Your task to perform on an android device: move a message to another label in the gmail app Image 0: 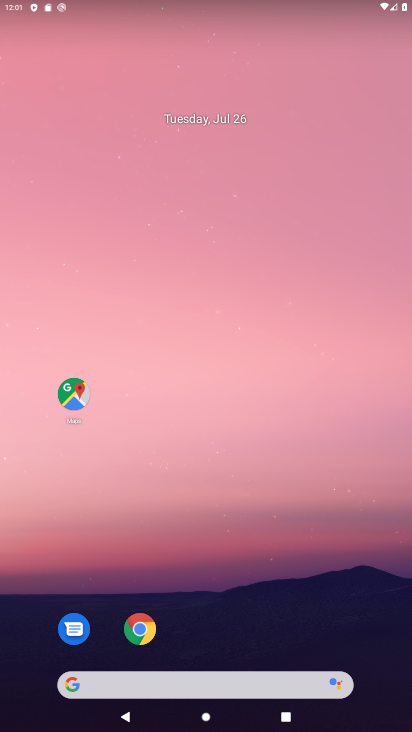
Step 0: drag from (333, 636) to (194, 81)
Your task to perform on an android device: move a message to another label in the gmail app Image 1: 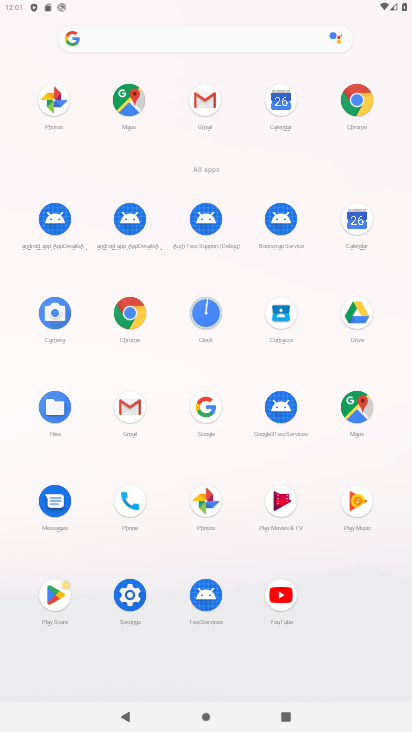
Step 1: click (136, 403)
Your task to perform on an android device: move a message to another label in the gmail app Image 2: 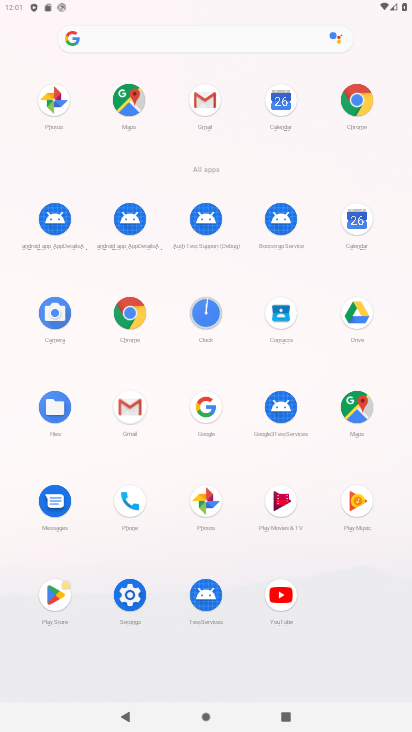
Step 2: click (131, 400)
Your task to perform on an android device: move a message to another label in the gmail app Image 3: 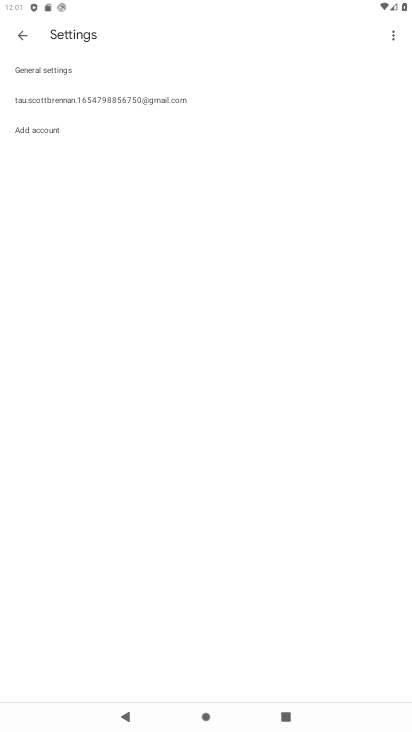
Step 3: click (72, 98)
Your task to perform on an android device: move a message to another label in the gmail app Image 4: 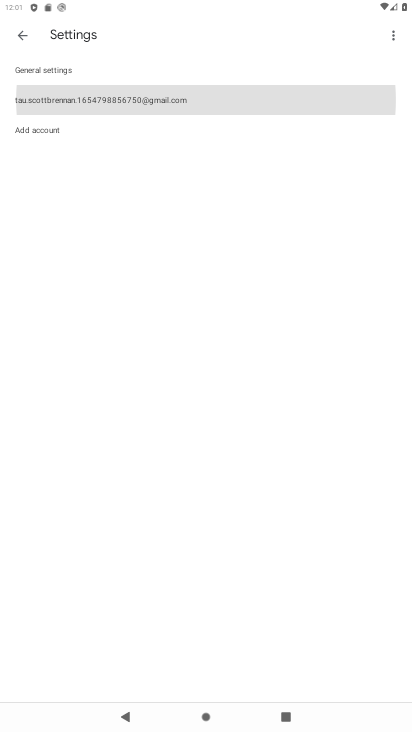
Step 4: click (72, 98)
Your task to perform on an android device: move a message to another label in the gmail app Image 5: 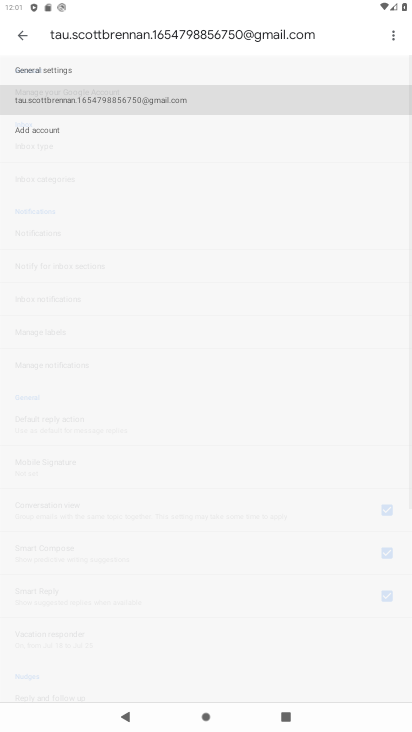
Step 5: click (74, 101)
Your task to perform on an android device: move a message to another label in the gmail app Image 6: 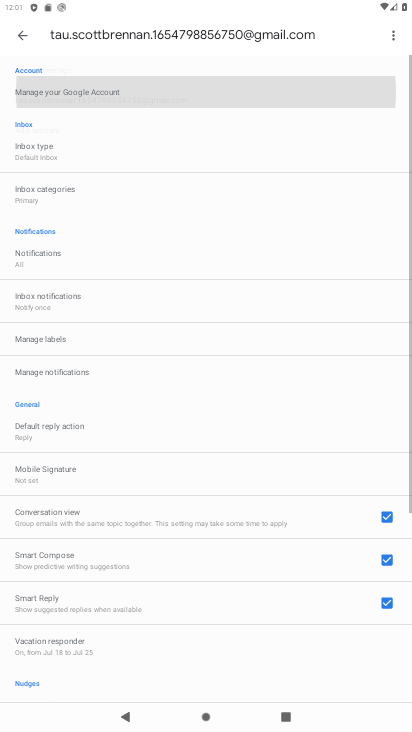
Step 6: click (74, 102)
Your task to perform on an android device: move a message to another label in the gmail app Image 7: 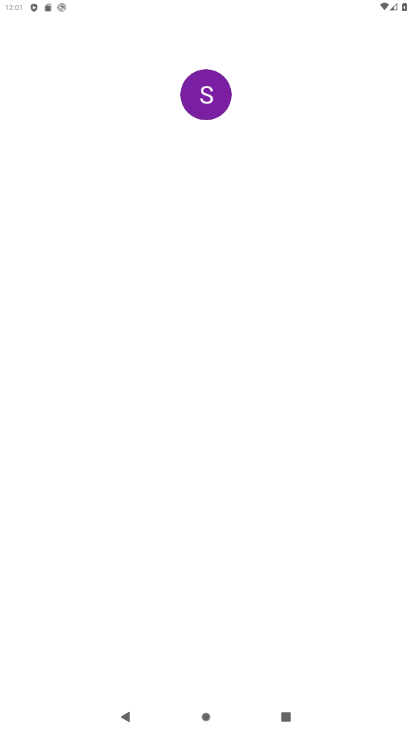
Step 7: press back button
Your task to perform on an android device: move a message to another label in the gmail app Image 8: 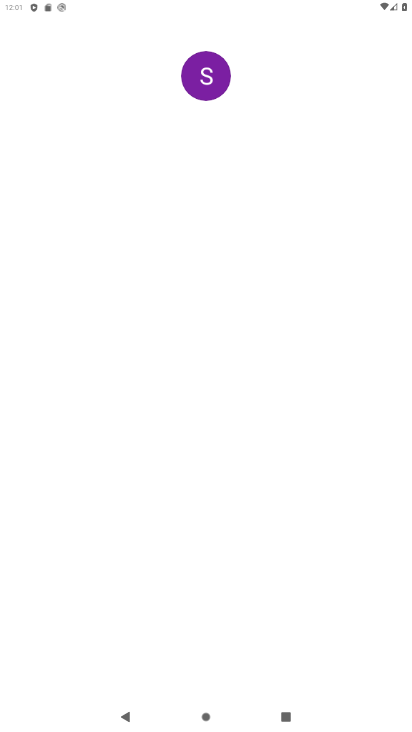
Step 8: press back button
Your task to perform on an android device: move a message to another label in the gmail app Image 9: 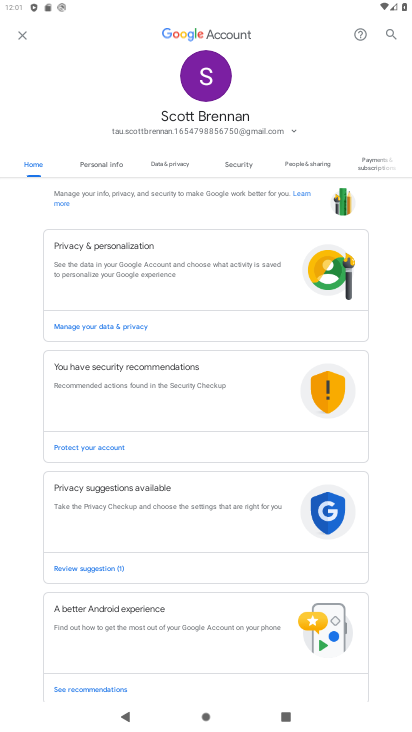
Step 9: click (20, 35)
Your task to perform on an android device: move a message to another label in the gmail app Image 10: 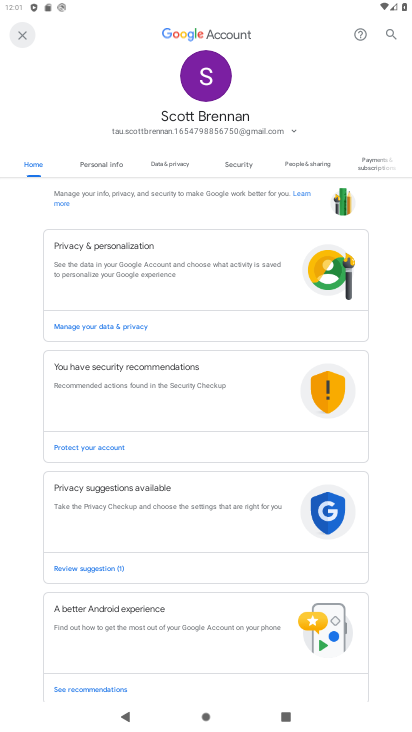
Step 10: click (20, 36)
Your task to perform on an android device: move a message to another label in the gmail app Image 11: 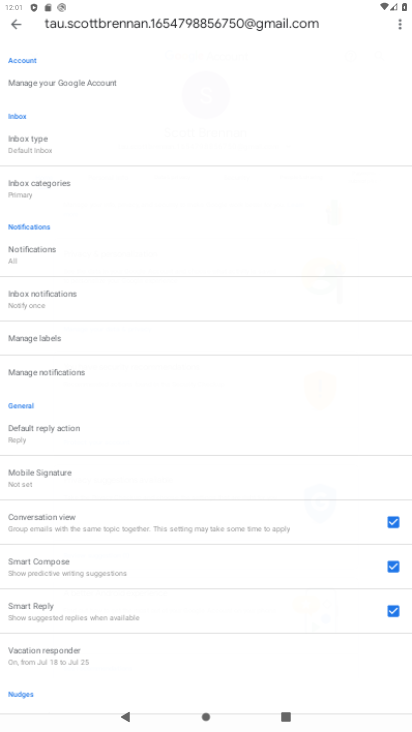
Step 11: click (20, 36)
Your task to perform on an android device: move a message to another label in the gmail app Image 12: 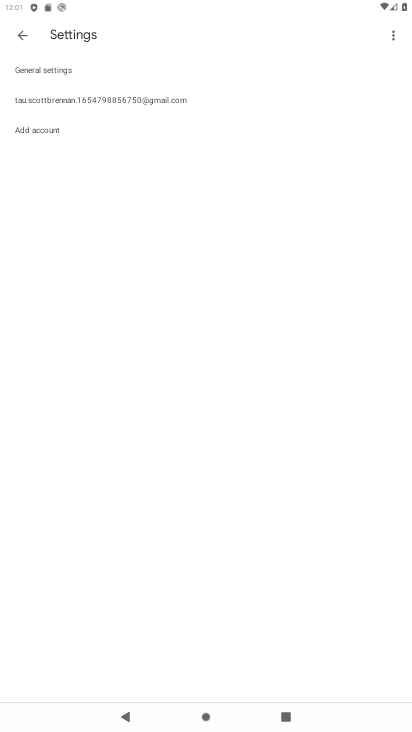
Step 12: click (30, 39)
Your task to perform on an android device: move a message to another label in the gmail app Image 13: 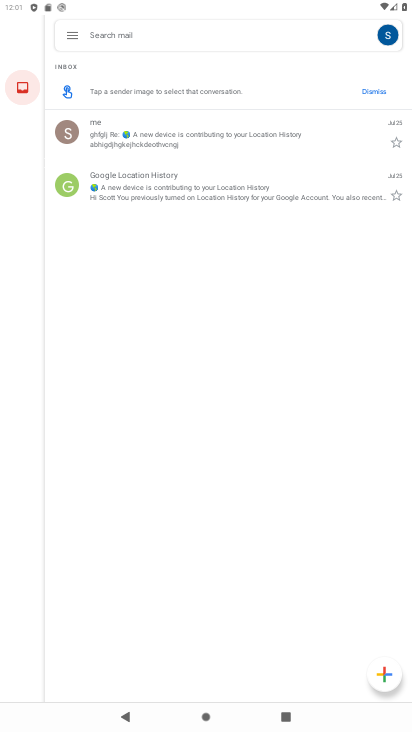
Step 13: click (394, 142)
Your task to perform on an android device: move a message to another label in the gmail app Image 14: 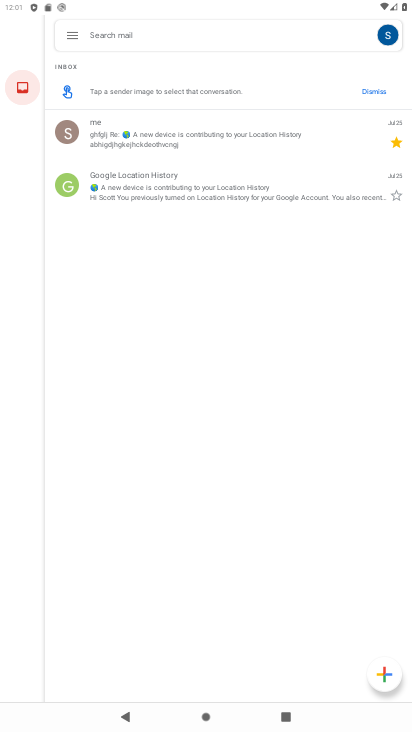
Step 14: click (390, 141)
Your task to perform on an android device: move a message to another label in the gmail app Image 15: 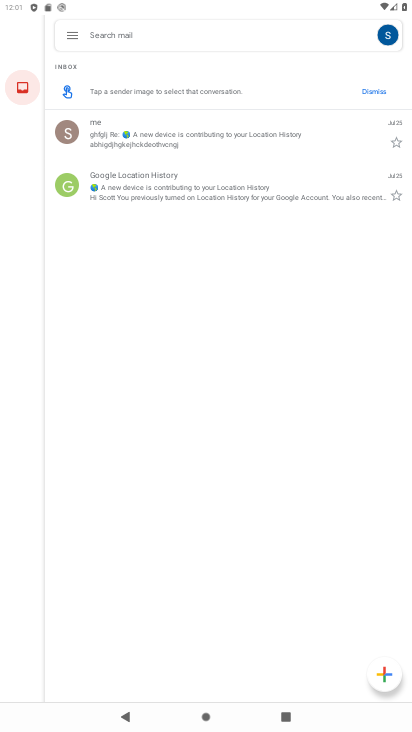
Step 15: click (393, 141)
Your task to perform on an android device: move a message to another label in the gmail app Image 16: 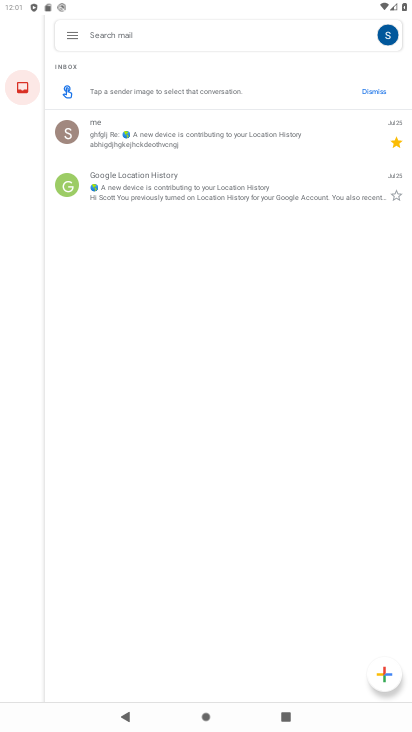
Step 16: task complete